Your task to perform on an android device: Open Youtube and go to "Your channel" Image 0: 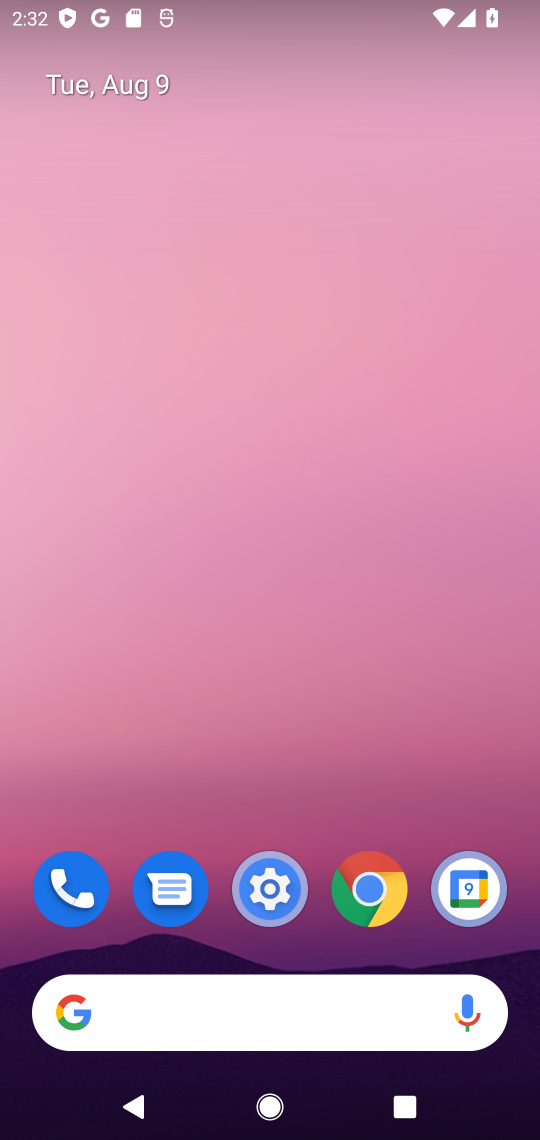
Step 0: drag from (288, 768) to (309, 0)
Your task to perform on an android device: Open Youtube and go to "Your channel" Image 1: 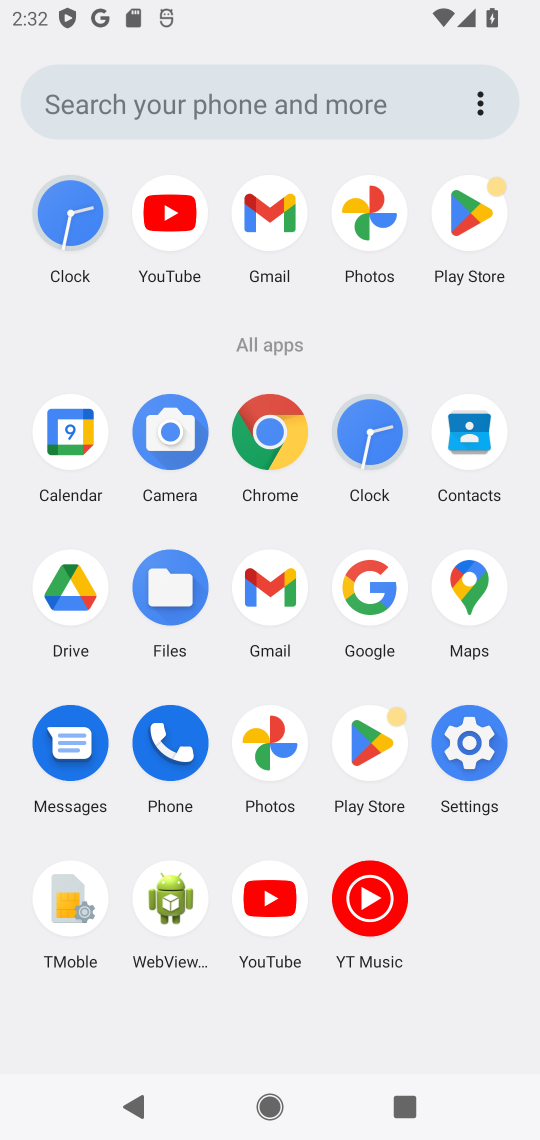
Step 1: click (260, 896)
Your task to perform on an android device: Open Youtube and go to "Your channel" Image 2: 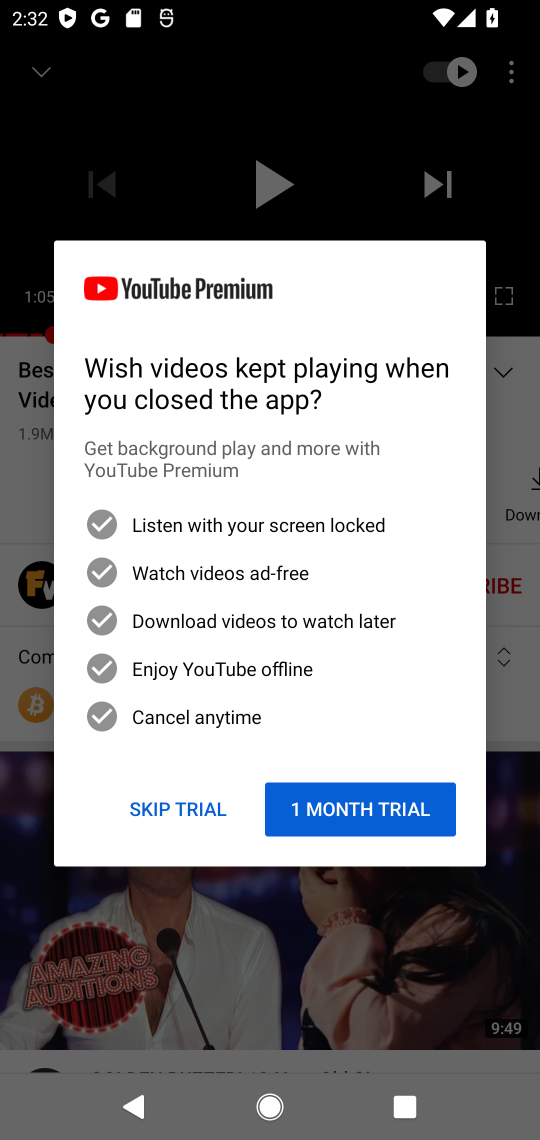
Step 2: click (200, 802)
Your task to perform on an android device: Open Youtube and go to "Your channel" Image 3: 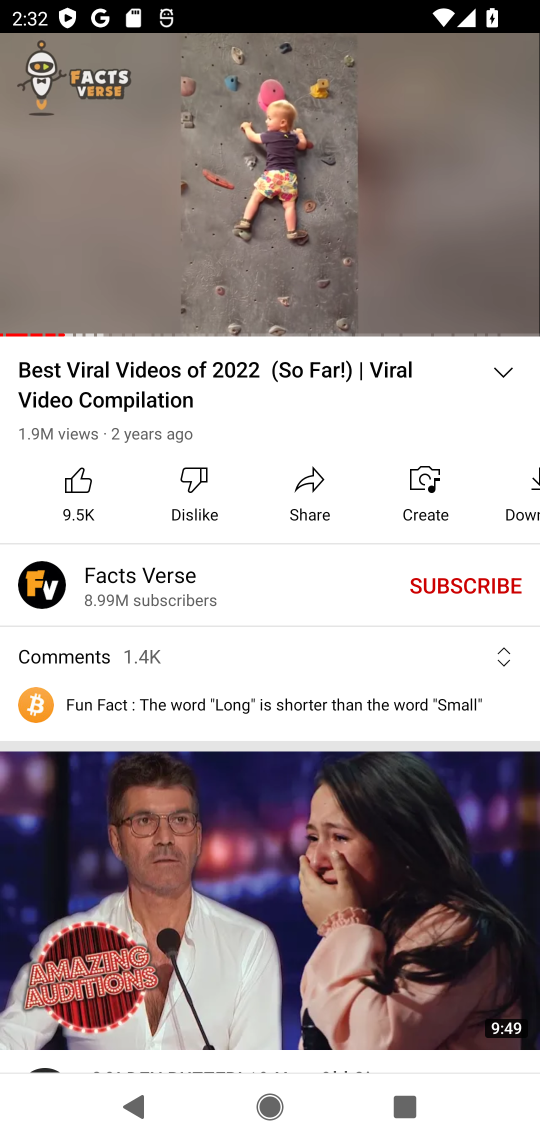
Step 3: press back button
Your task to perform on an android device: Open Youtube and go to "Your channel" Image 4: 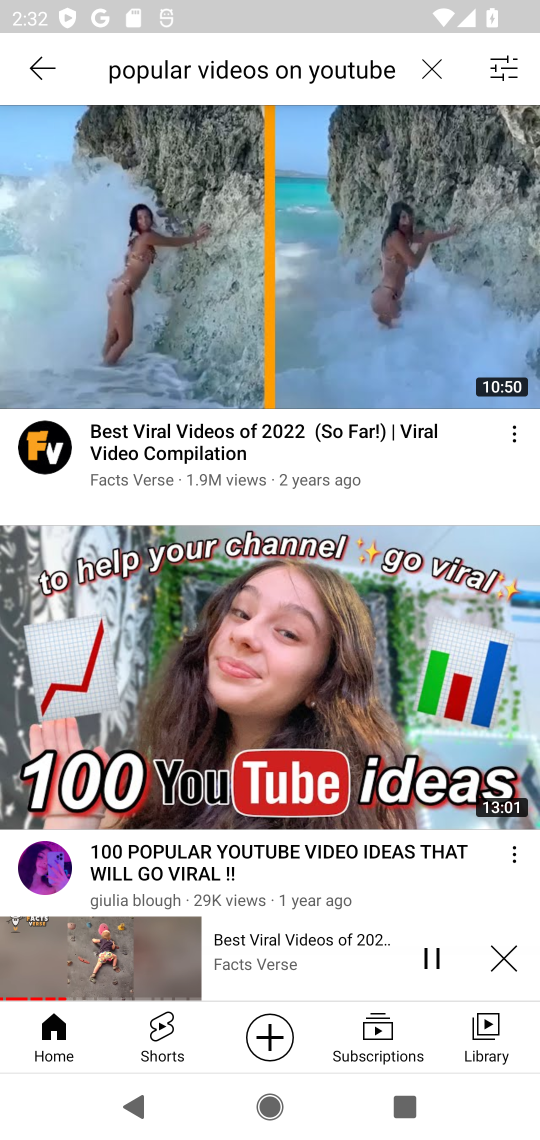
Step 4: press back button
Your task to perform on an android device: Open Youtube and go to "Your channel" Image 5: 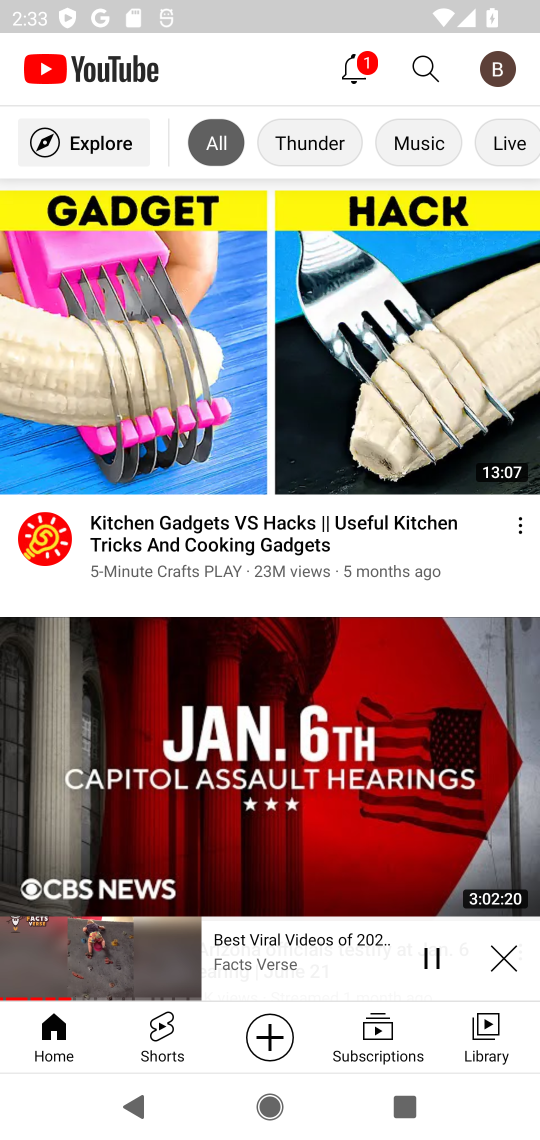
Step 5: click (502, 74)
Your task to perform on an android device: Open Youtube and go to "Your channel" Image 6: 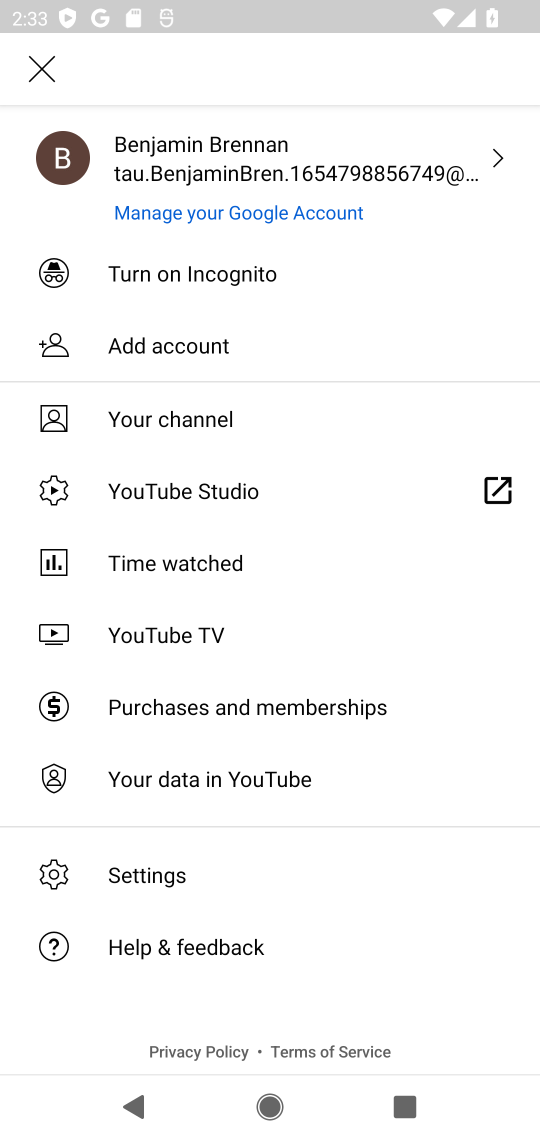
Step 6: click (217, 409)
Your task to perform on an android device: Open Youtube and go to "Your channel" Image 7: 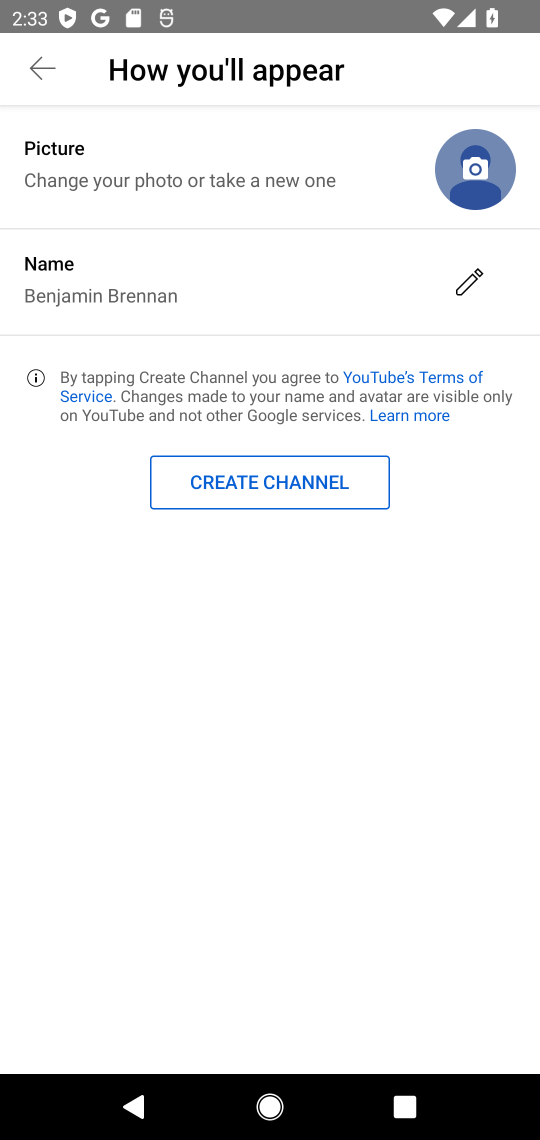
Step 7: task complete